Your task to perform on an android device: Go to Maps Image 0: 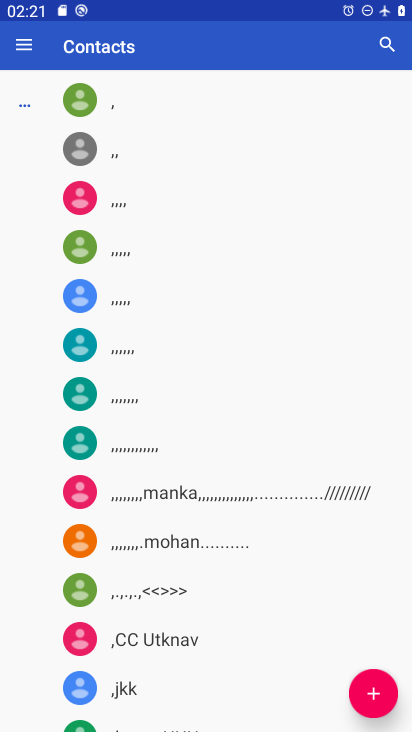
Step 0: press home button
Your task to perform on an android device: Go to Maps Image 1: 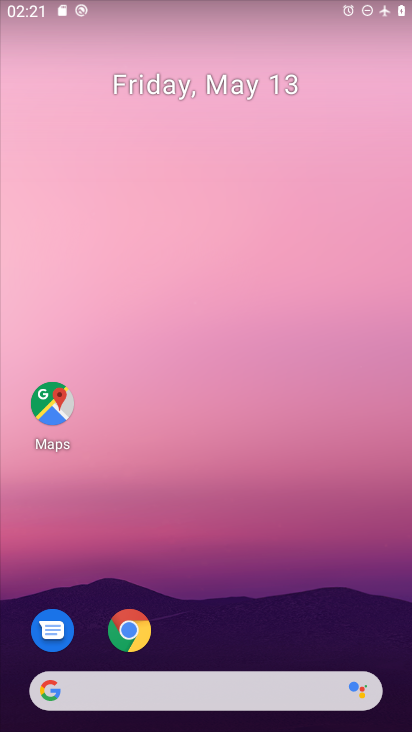
Step 1: drag from (263, 715) to (176, 286)
Your task to perform on an android device: Go to Maps Image 2: 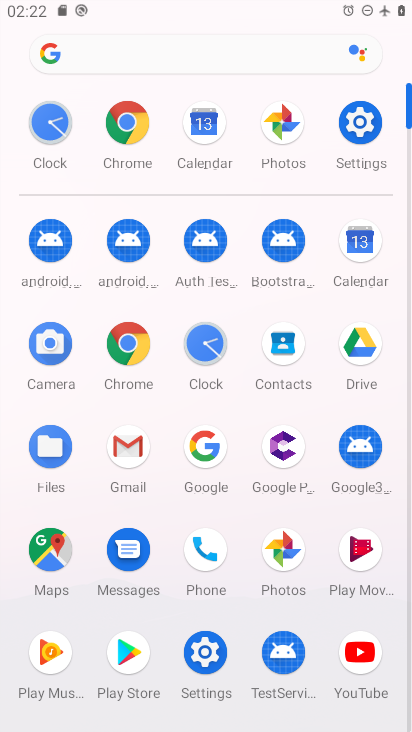
Step 2: click (45, 562)
Your task to perform on an android device: Go to Maps Image 3: 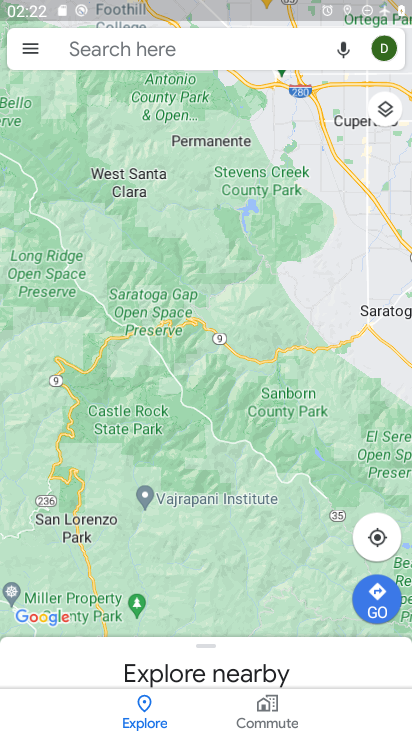
Step 3: click (370, 520)
Your task to perform on an android device: Go to Maps Image 4: 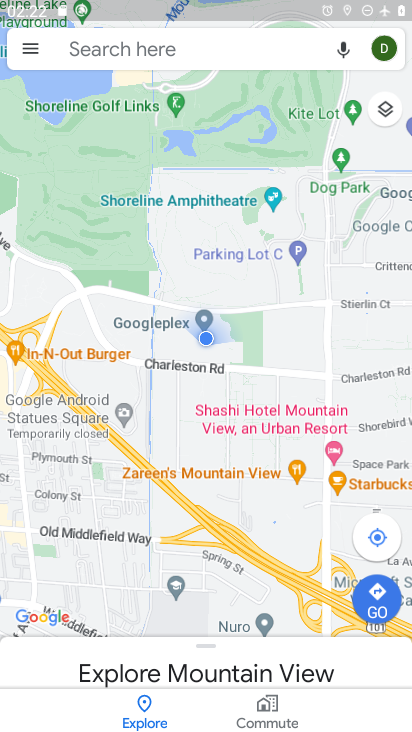
Step 4: task complete